Your task to perform on an android device: Open my contact list Image 0: 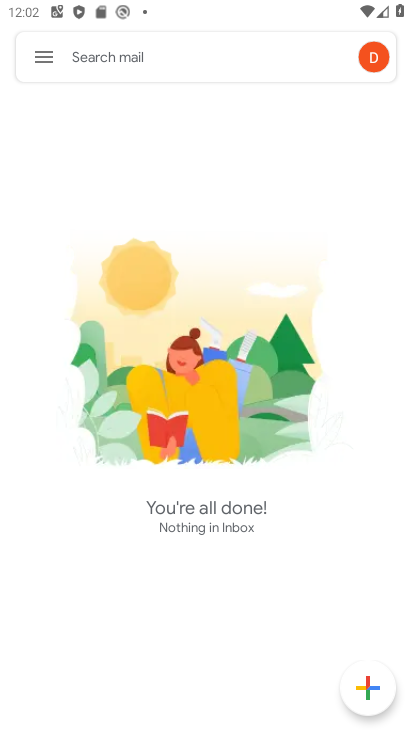
Step 0: press home button
Your task to perform on an android device: Open my contact list Image 1: 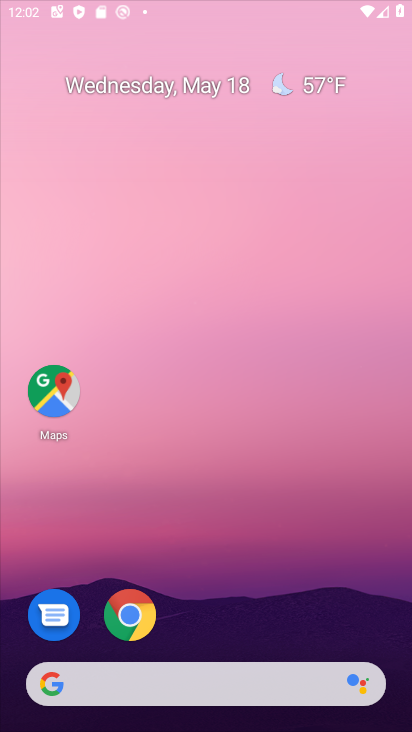
Step 1: drag from (398, 648) to (311, 46)
Your task to perform on an android device: Open my contact list Image 2: 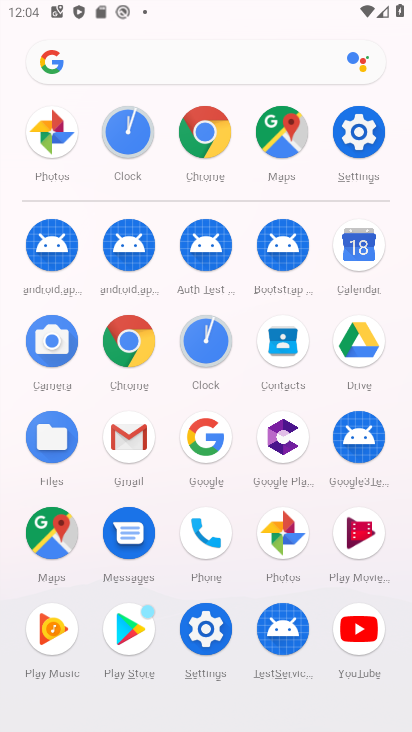
Step 2: click (276, 353)
Your task to perform on an android device: Open my contact list Image 3: 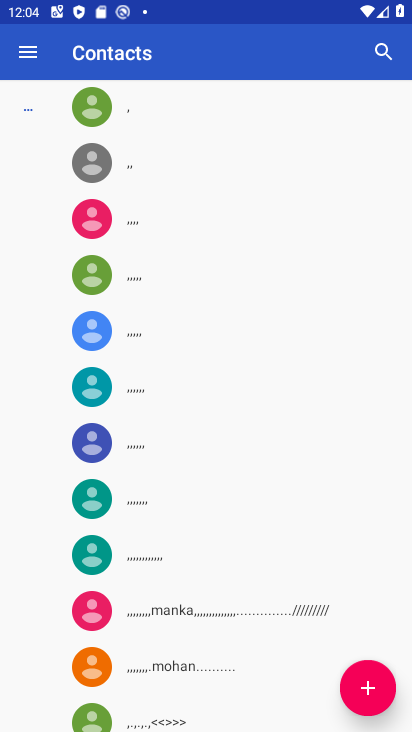
Step 3: task complete